Your task to perform on an android device: change the upload size in google photos Image 0: 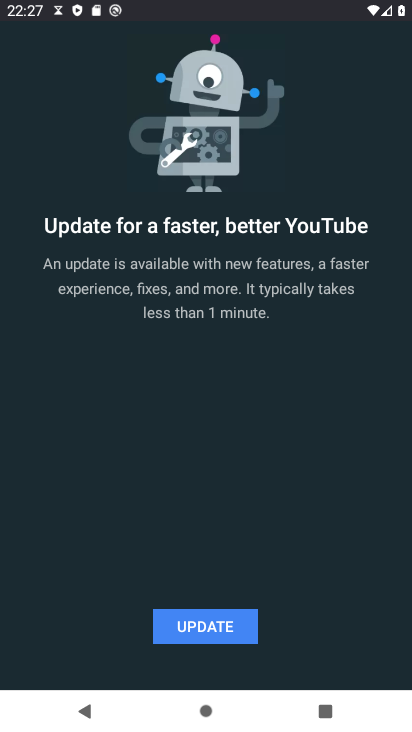
Step 0: press home button
Your task to perform on an android device: change the upload size in google photos Image 1: 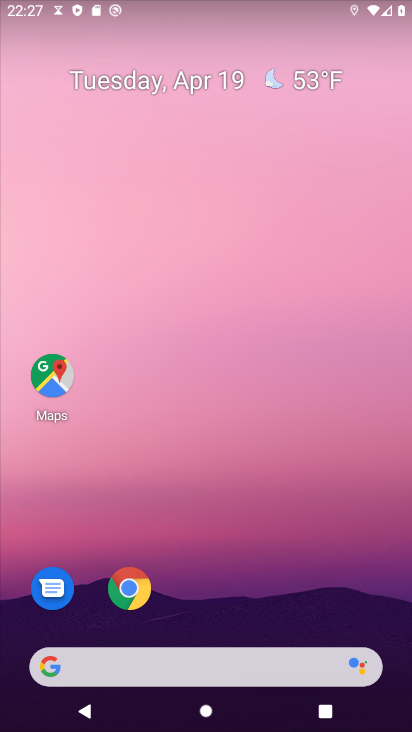
Step 1: drag from (198, 593) to (279, 3)
Your task to perform on an android device: change the upload size in google photos Image 2: 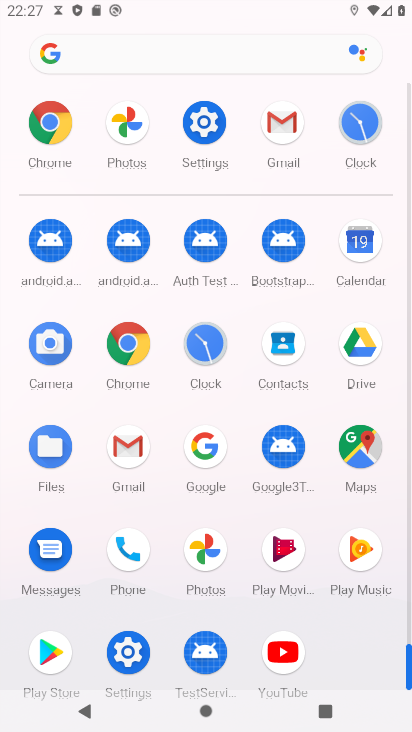
Step 2: click (130, 125)
Your task to perform on an android device: change the upload size in google photos Image 3: 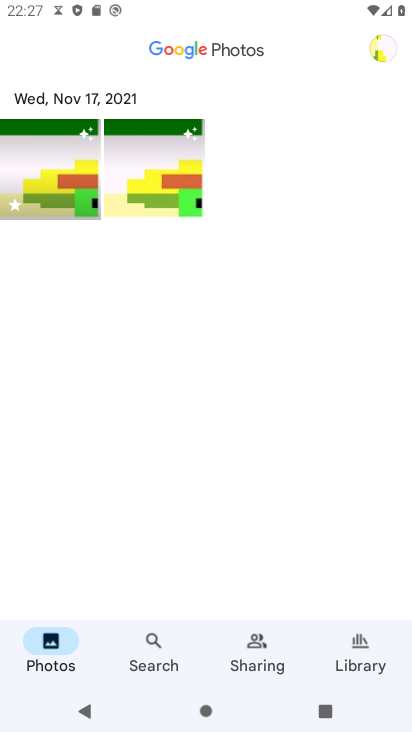
Step 3: click (386, 45)
Your task to perform on an android device: change the upload size in google photos Image 4: 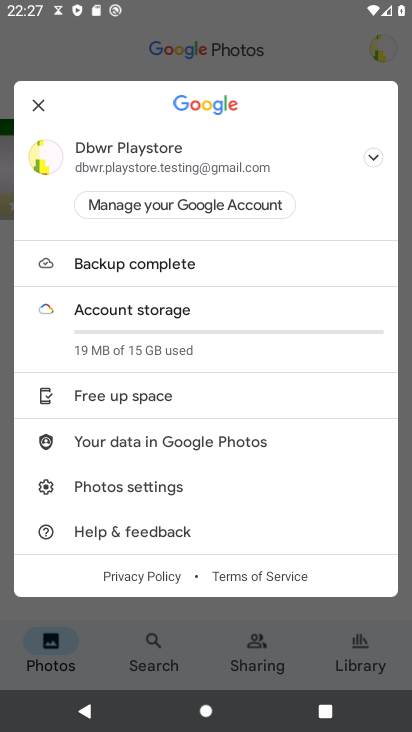
Step 4: click (142, 489)
Your task to perform on an android device: change the upload size in google photos Image 5: 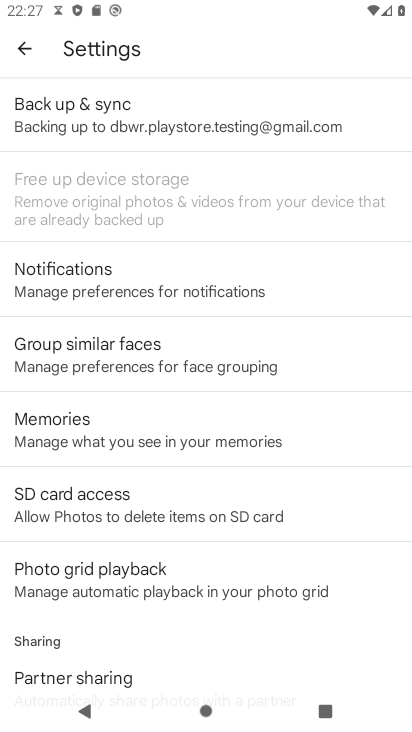
Step 5: click (193, 128)
Your task to perform on an android device: change the upload size in google photos Image 6: 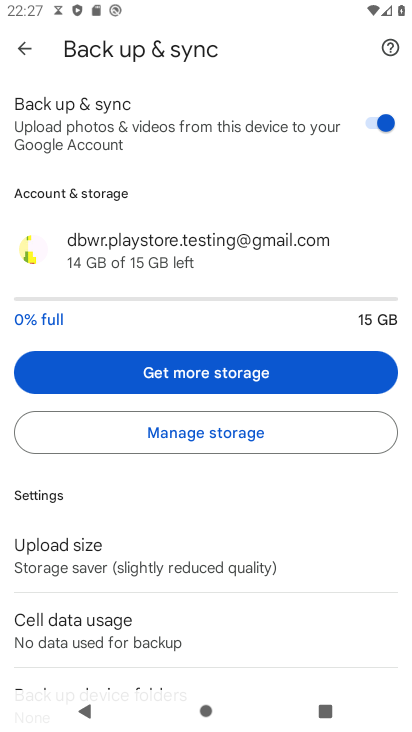
Step 6: click (144, 570)
Your task to perform on an android device: change the upload size in google photos Image 7: 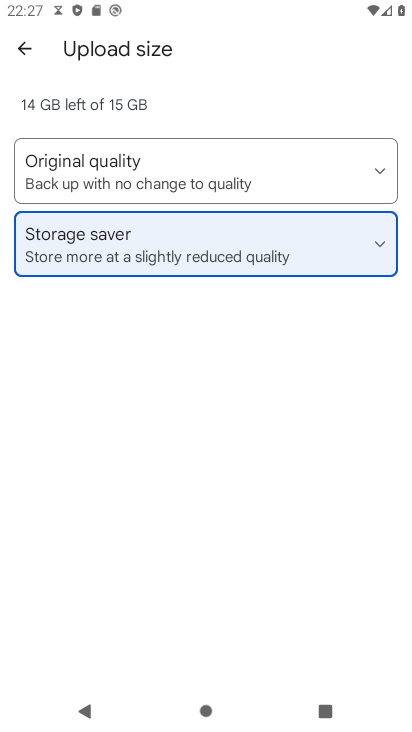
Step 7: click (135, 176)
Your task to perform on an android device: change the upload size in google photos Image 8: 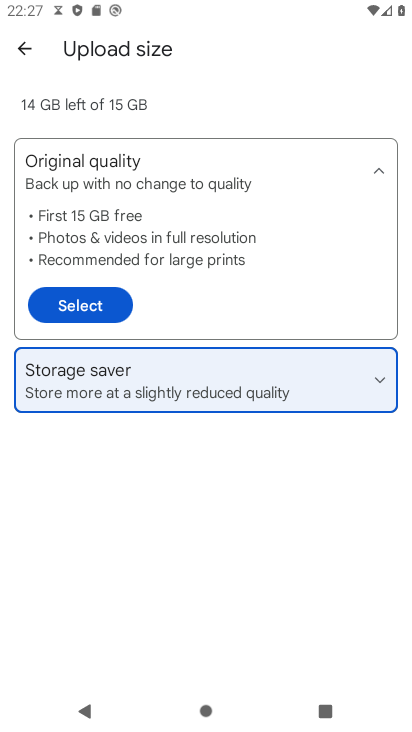
Step 8: click (100, 321)
Your task to perform on an android device: change the upload size in google photos Image 9: 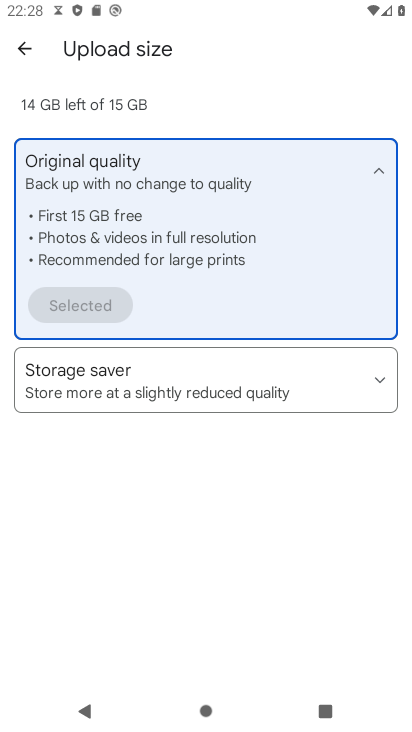
Step 9: task complete